Your task to perform on an android device: Clear the cart on bestbuy. Search for usb-c to usb-a on bestbuy, select the first entry, add it to the cart, then select checkout. Image 0: 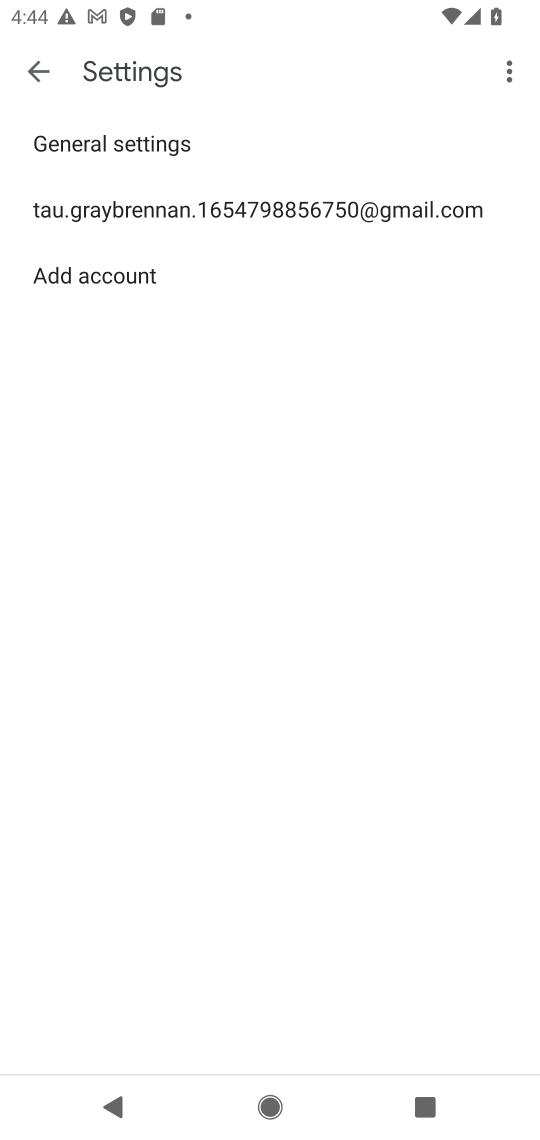
Step 0: press home button
Your task to perform on an android device: Clear the cart on bestbuy. Search for usb-c to usb-a on bestbuy, select the first entry, add it to the cart, then select checkout. Image 1: 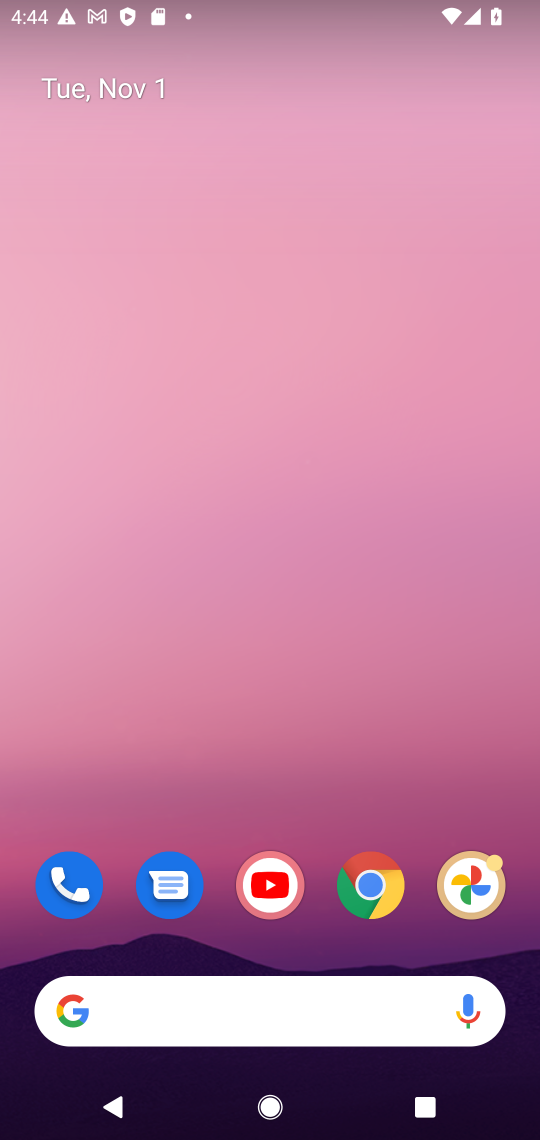
Step 1: click (373, 886)
Your task to perform on an android device: Clear the cart on bestbuy. Search for usb-c to usb-a on bestbuy, select the first entry, add it to the cart, then select checkout. Image 2: 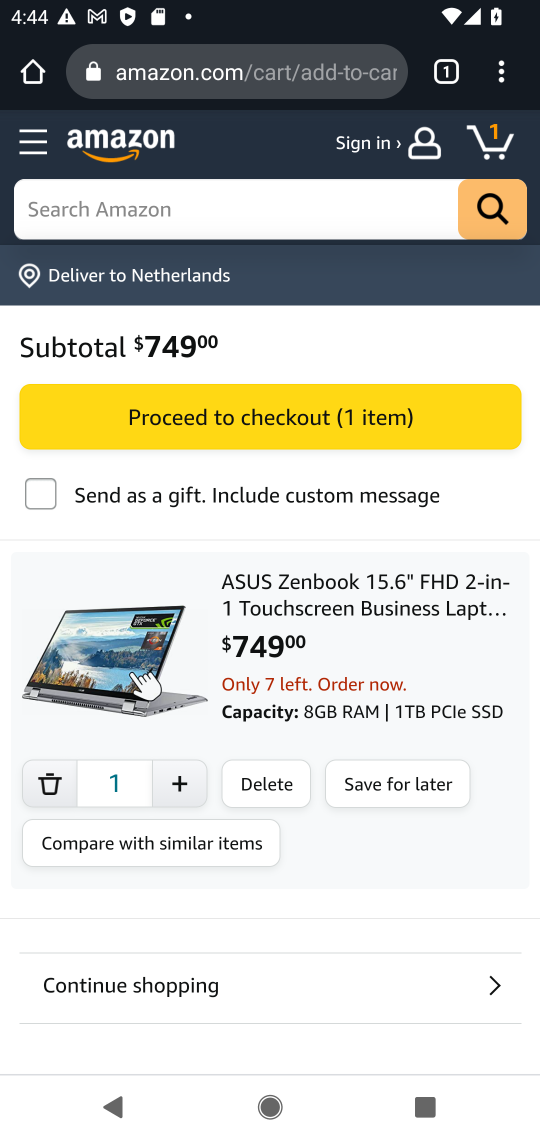
Step 2: click (229, 49)
Your task to perform on an android device: Clear the cart on bestbuy. Search for usb-c to usb-a on bestbuy, select the first entry, add it to the cart, then select checkout. Image 3: 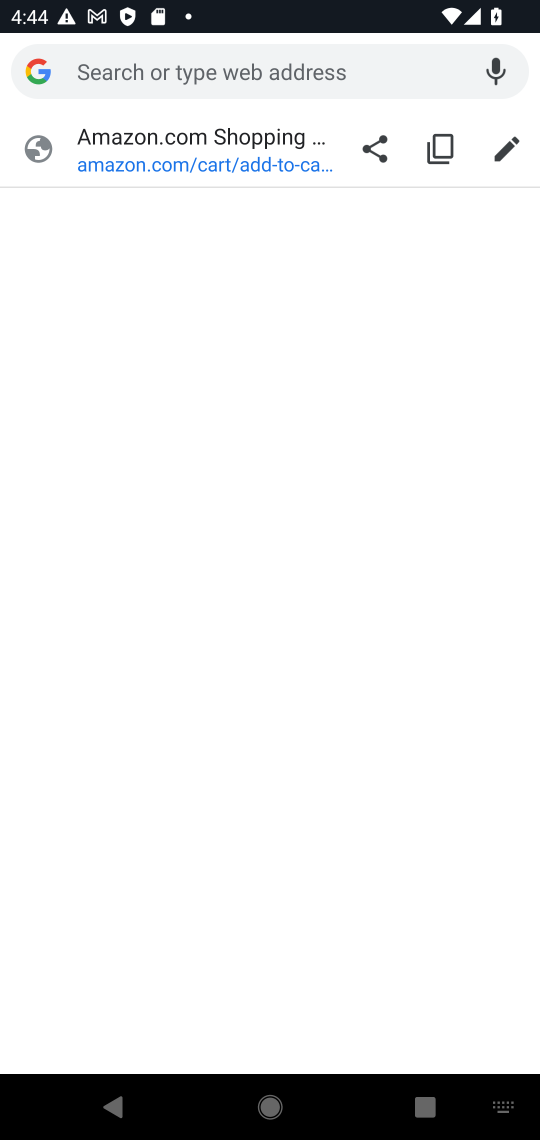
Step 3: type "bestbuy"
Your task to perform on an android device: Clear the cart on bestbuy. Search for usb-c to usb-a on bestbuy, select the first entry, add it to the cart, then select checkout. Image 4: 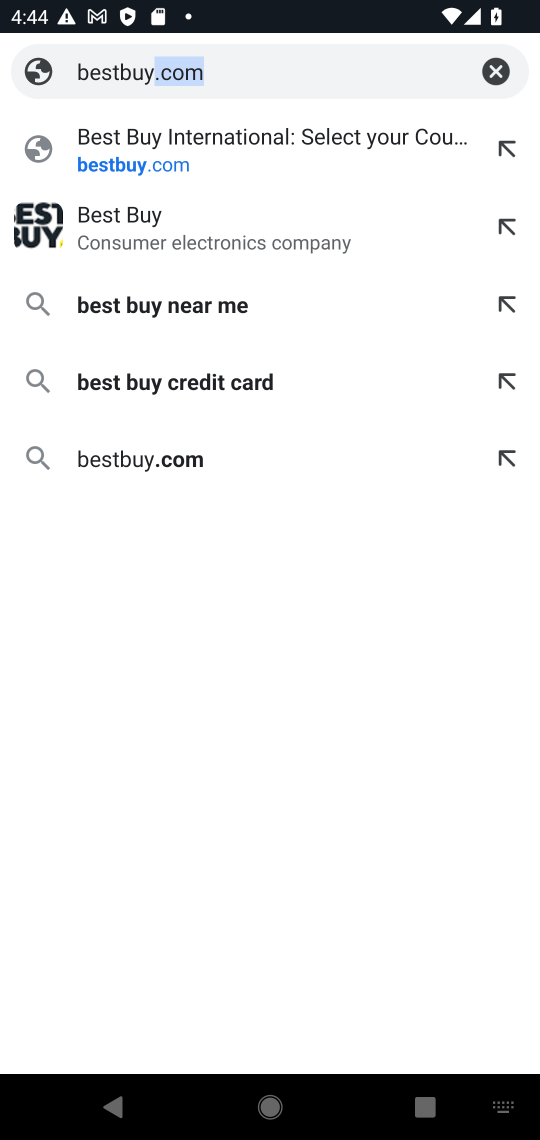
Step 4: click (150, 157)
Your task to perform on an android device: Clear the cart on bestbuy. Search for usb-c to usb-a on bestbuy, select the first entry, add it to the cart, then select checkout. Image 5: 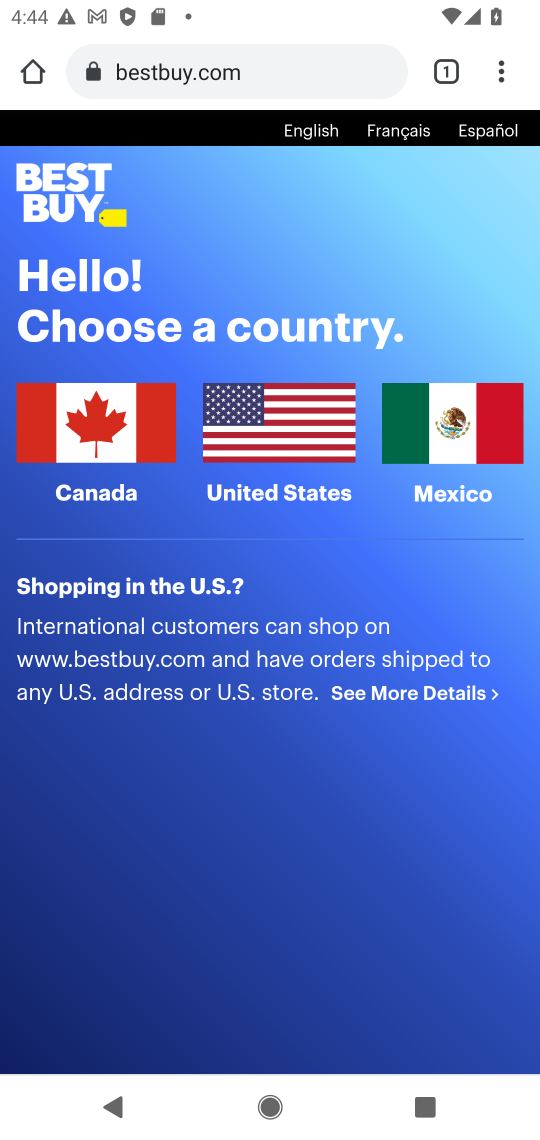
Step 5: click (304, 416)
Your task to perform on an android device: Clear the cart on bestbuy. Search for usb-c to usb-a on bestbuy, select the first entry, add it to the cart, then select checkout. Image 6: 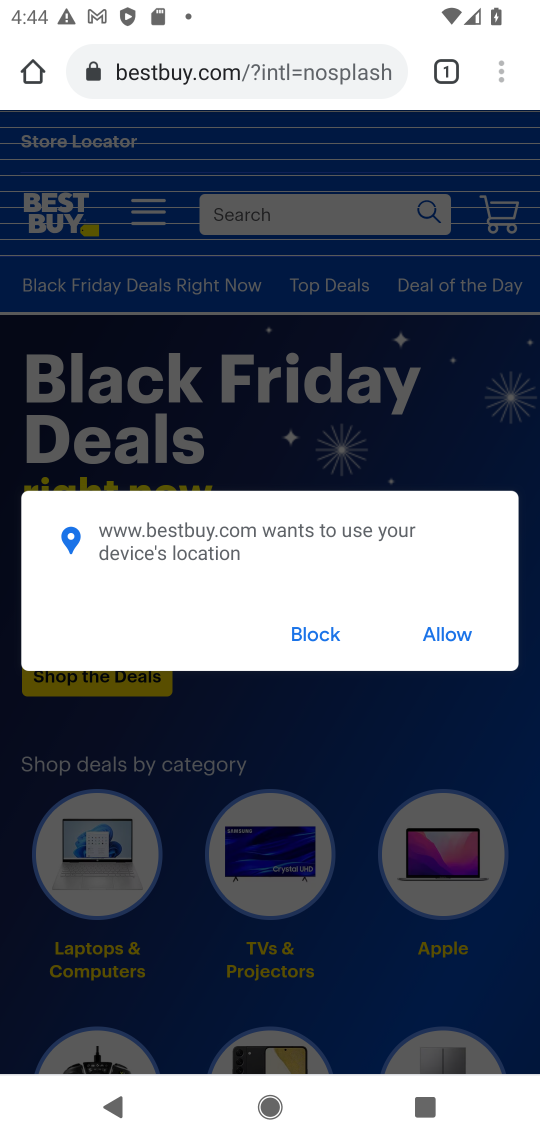
Step 6: click (451, 638)
Your task to perform on an android device: Clear the cart on bestbuy. Search for usb-c to usb-a on bestbuy, select the first entry, add it to the cart, then select checkout. Image 7: 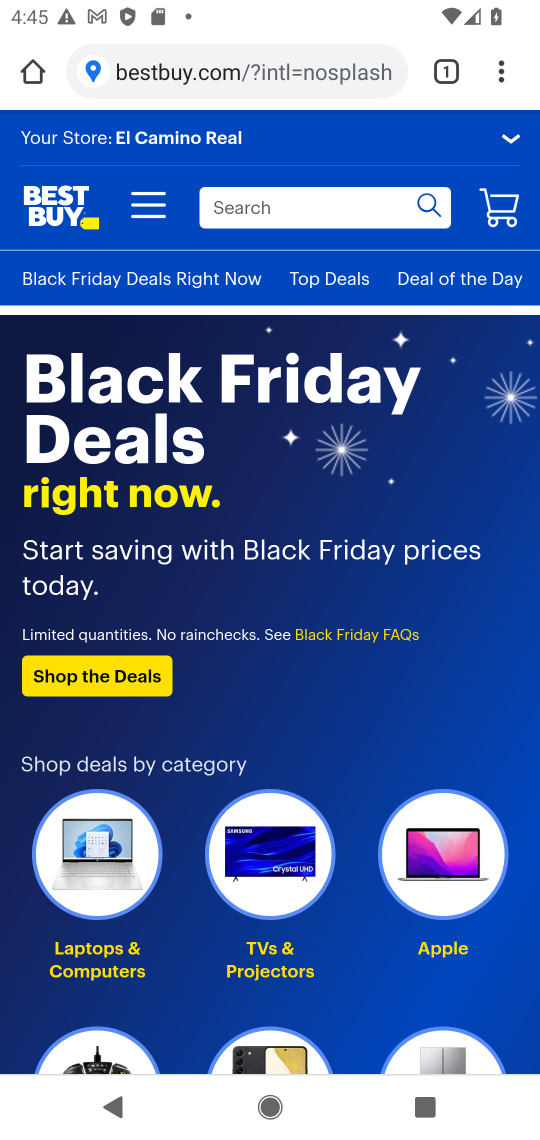
Step 7: click (492, 207)
Your task to perform on an android device: Clear the cart on bestbuy. Search for usb-c to usb-a on bestbuy, select the first entry, add it to the cart, then select checkout. Image 8: 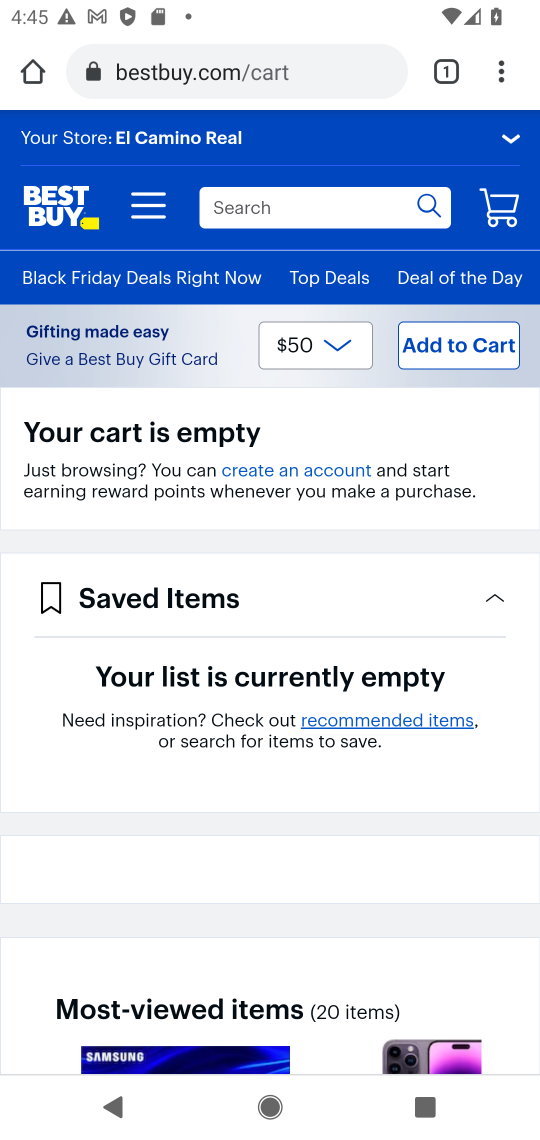
Step 8: click (267, 206)
Your task to perform on an android device: Clear the cart on bestbuy. Search for usb-c to usb-a on bestbuy, select the first entry, add it to the cart, then select checkout. Image 9: 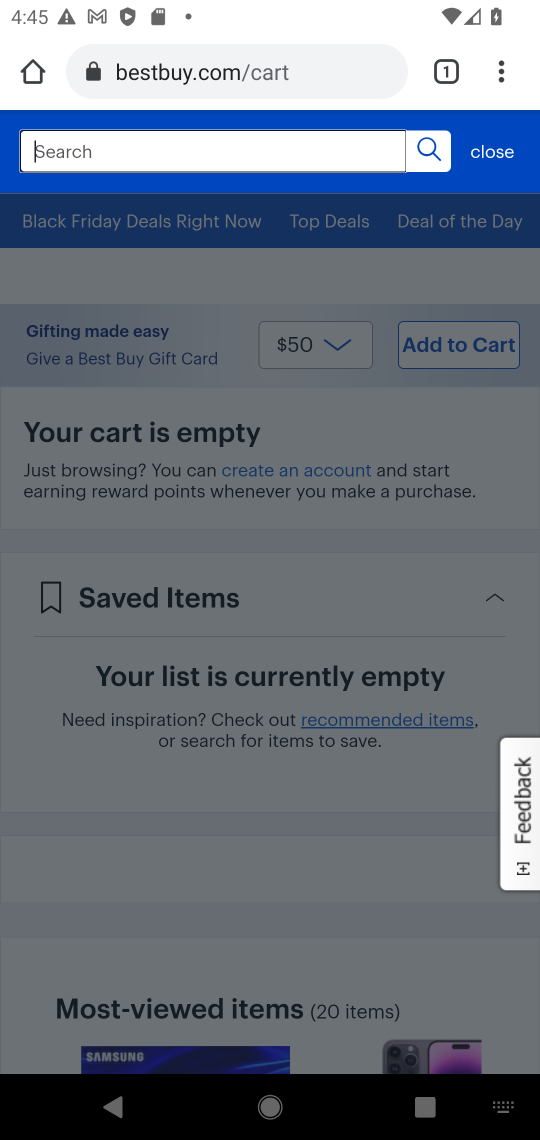
Step 9: type "usb-c to usb-a"
Your task to perform on an android device: Clear the cart on bestbuy. Search for usb-c to usb-a on bestbuy, select the first entry, add it to the cart, then select checkout. Image 10: 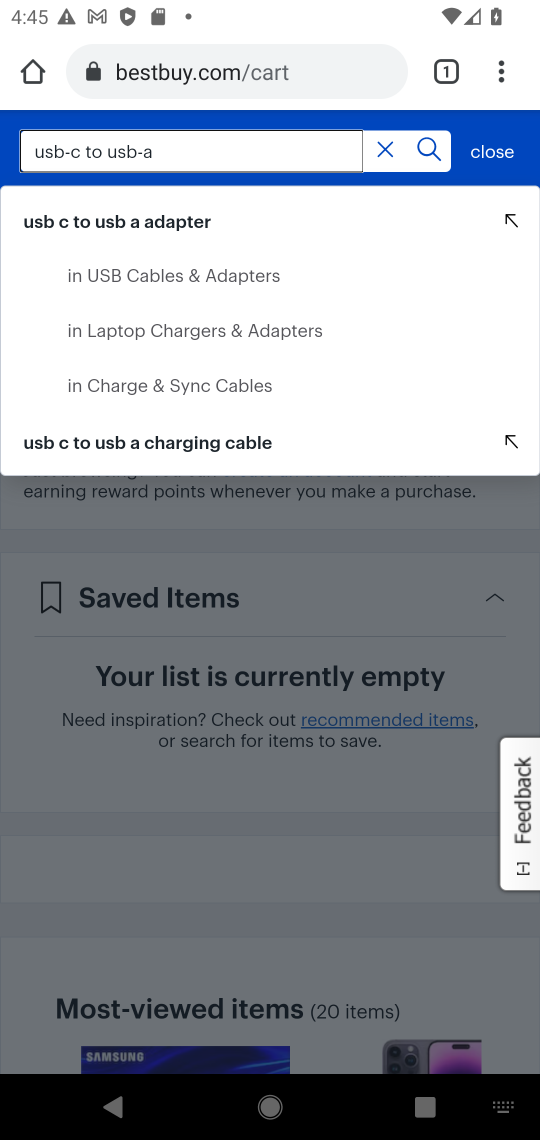
Step 10: click (71, 217)
Your task to perform on an android device: Clear the cart on bestbuy. Search for usb-c to usb-a on bestbuy, select the first entry, add it to the cart, then select checkout. Image 11: 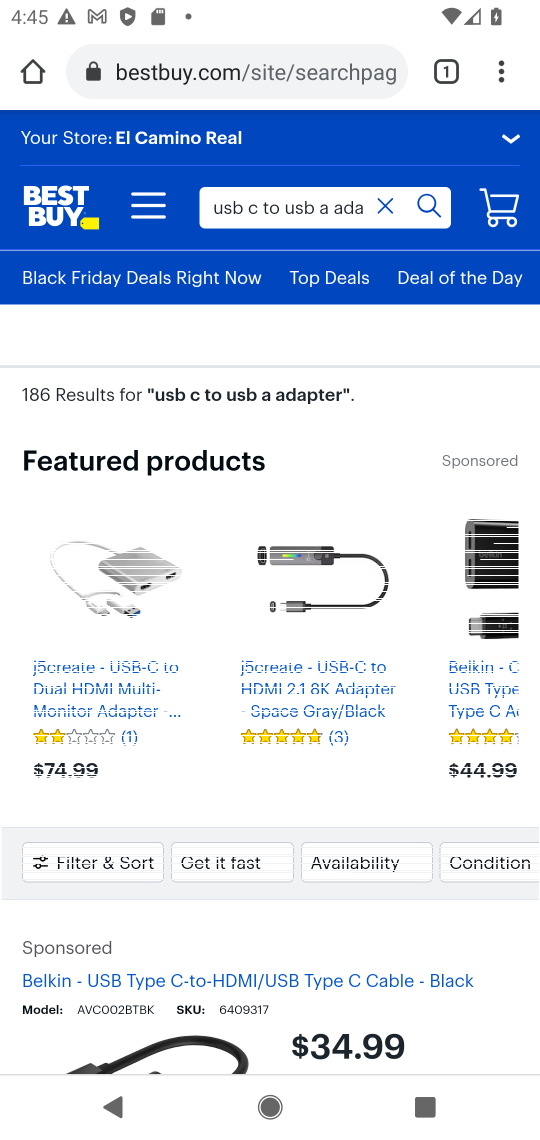
Step 11: drag from (298, 802) to (264, 159)
Your task to perform on an android device: Clear the cart on bestbuy. Search for usb-c to usb-a on bestbuy, select the first entry, add it to the cart, then select checkout. Image 12: 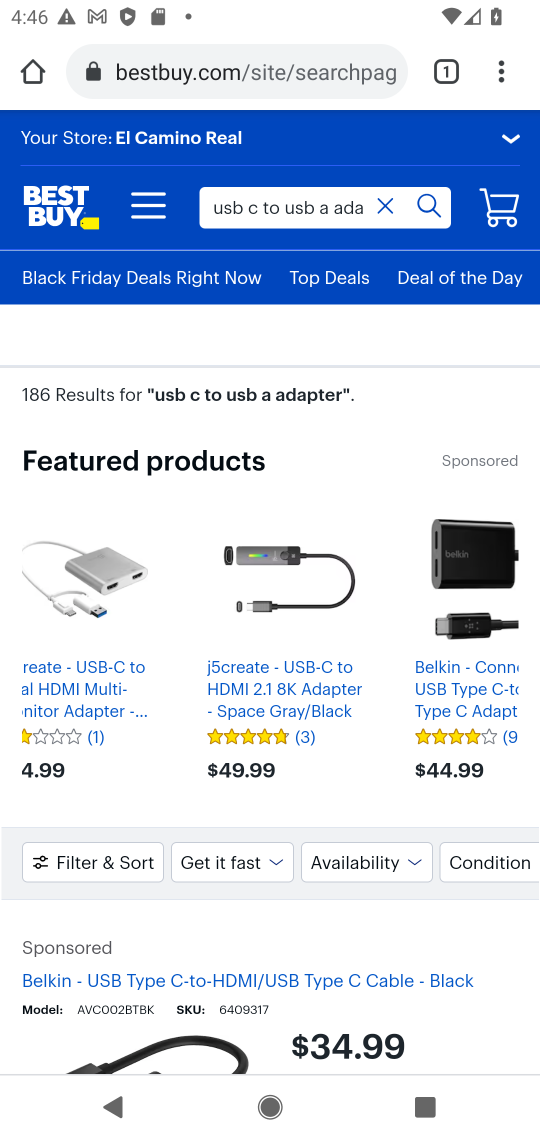
Step 12: drag from (277, 856) to (317, 336)
Your task to perform on an android device: Clear the cart on bestbuy. Search for usb-c to usb-a on bestbuy, select the first entry, add it to the cart, then select checkout. Image 13: 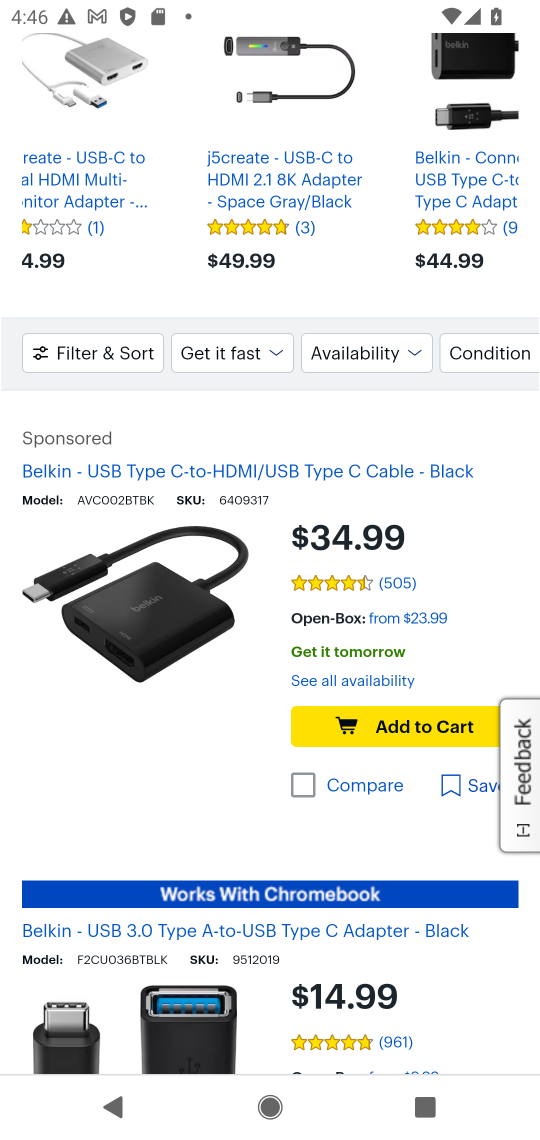
Step 13: drag from (316, 891) to (292, 508)
Your task to perform on an android device: Clear the cart on bestbuy. Search for usb-c to usb-a on bestbuy, select the first entry, add it to the cart, then select checkout. Image 14: 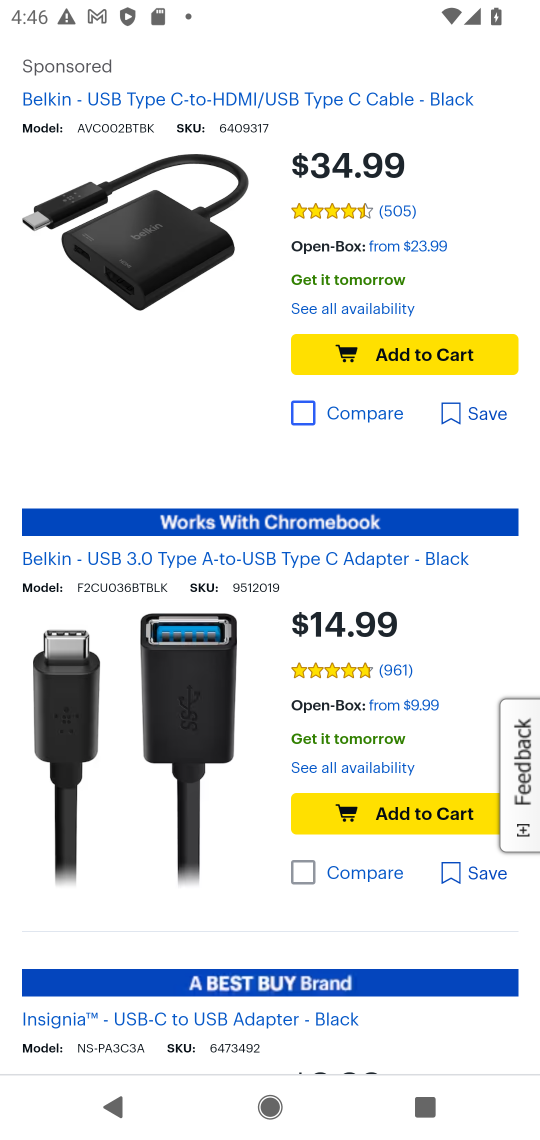
Step 14: drag from (359, 982) to (319, 443)
Your task to perform on an android device: Clear the cart on bestbuy. Search for usb-c to usb-a on bestbuy, select the first entry, add it to the cart, then select checkout. Image 15: 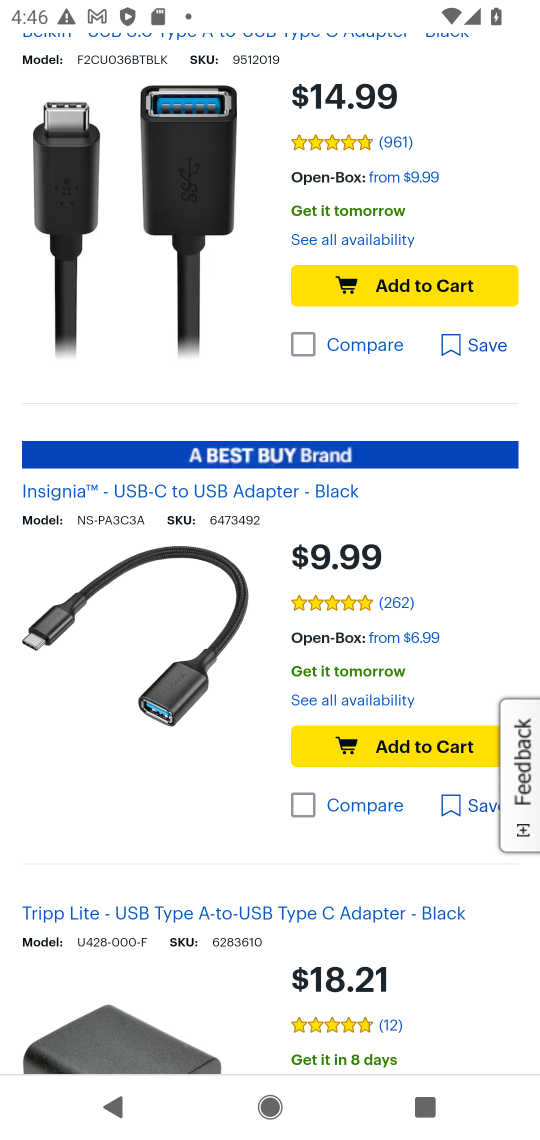
Step 15: click (382, 280)
Your task to perform on an android device: Clear the cart on bestbuy. Search for usb-c to usb-a on bestbuy, select the first entry, add it to the cart, then select checkout. Image 16: 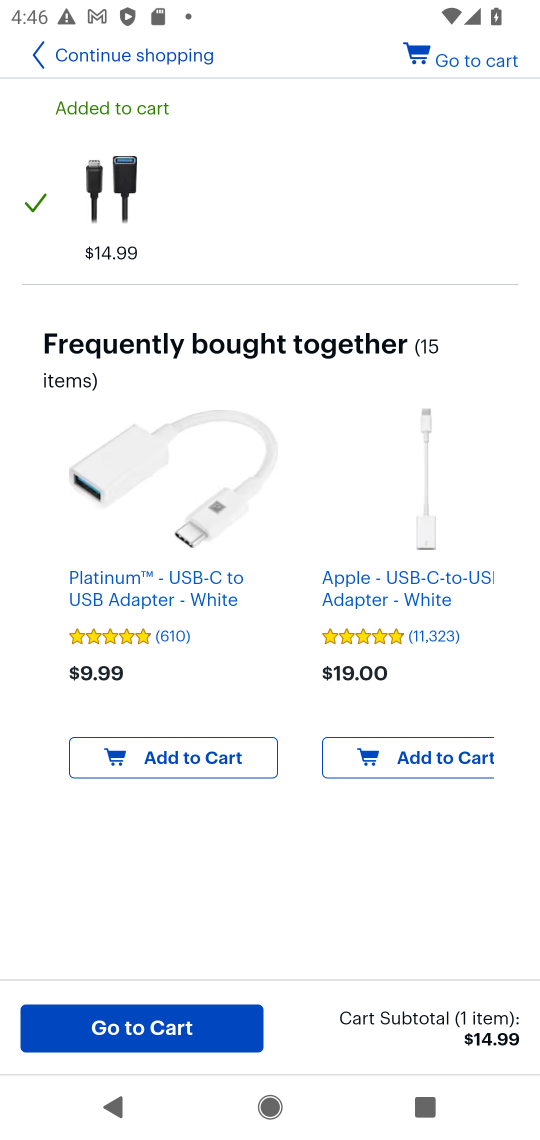
Step 16: click (131, 1018)
Your task to perform on an android device: Clear the cart on bestbuy. Search for usb-c to usb-a on bestbuy, select the first entry, add it to the cart, then select checkout. Image 17: 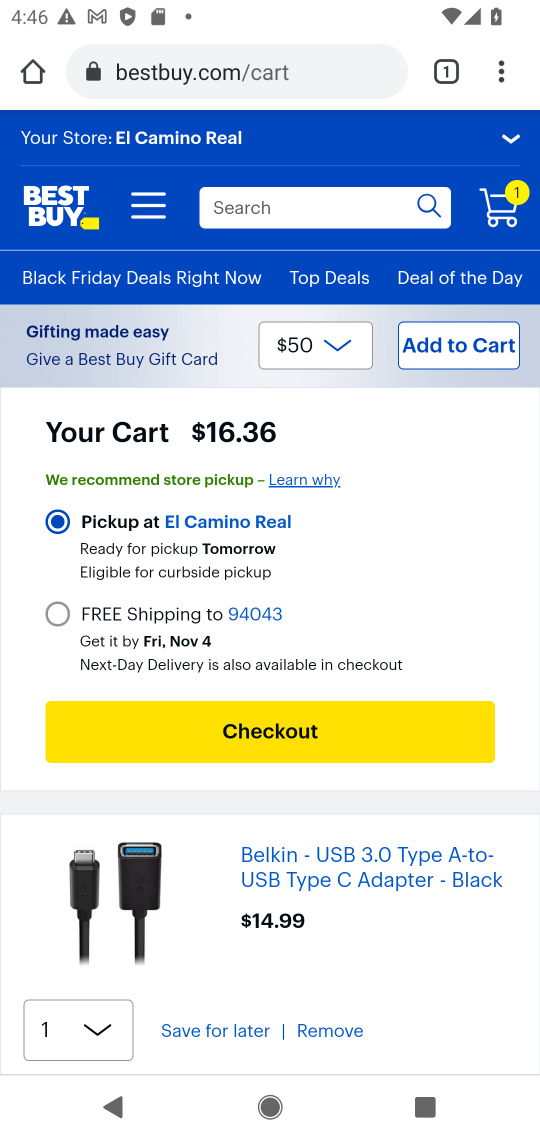
Step 17: click (257, 742)
Your task to perform on an android device: Clear the cart on bestbuy. Search for usb-c to usb-a on bestbuy, select the first entry, add it to the cart, then select checkout. Image 18: 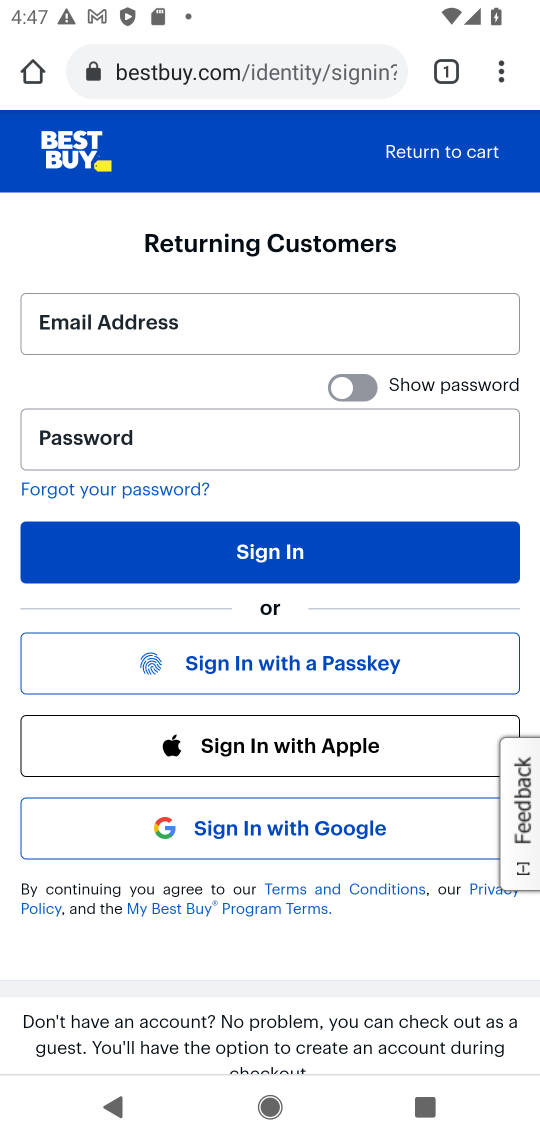
Step 18: task complete